Your task to perform on an android device: choose inbox layout in the gmail app Image 0: 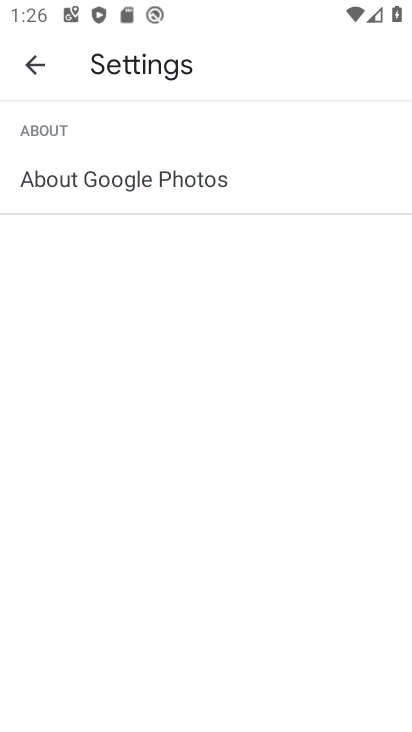
Step 0: press home button
Your task to perform on an android device: choose inbox layout in the gmail app Image 1: 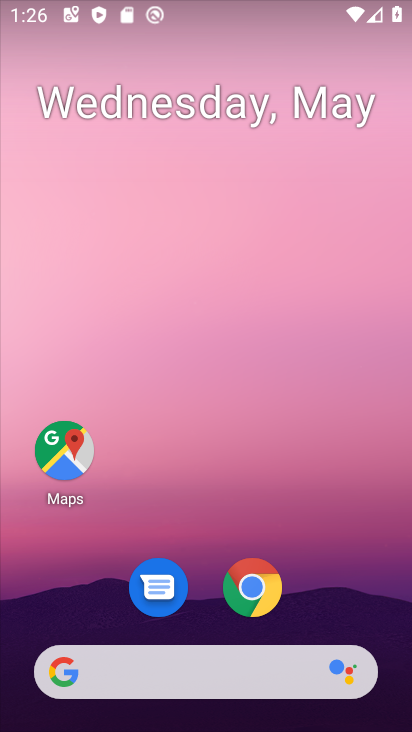
Step 1: drag from (325, 620) to (288, 3)
Your task to perform on an android device: choose inbox layout in the gmail app Image 2: 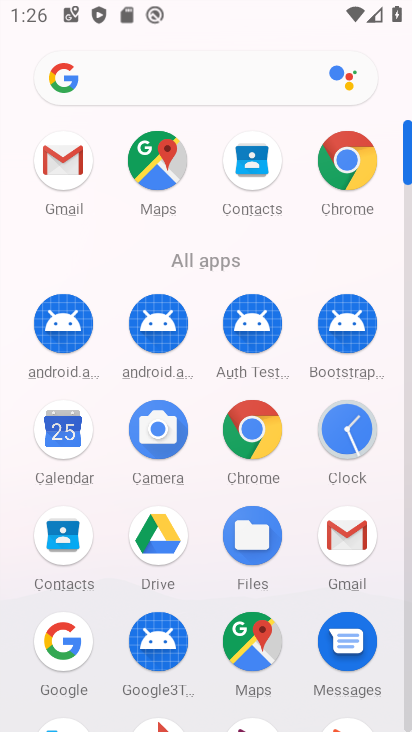
Step 2: click (345, 546)
Your task to perform on an android device: choose inbox layout in the gmail app Image 3: 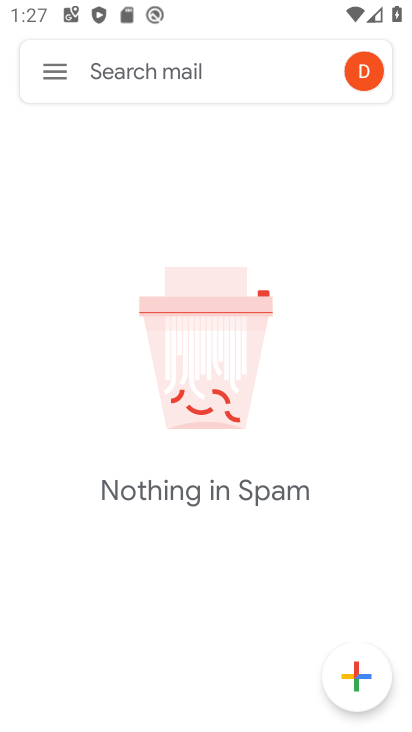
Step 3: click (60, 68)
Your task to perform on an android device: choose inbox layout in the gmail app Image 4: 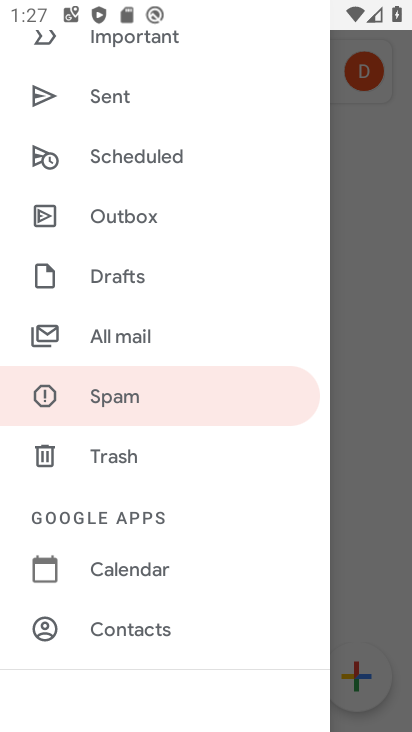
Step 4: drag from (156, 595) to (154, 108)
Your task to perform on an android device: choose inbox layout in the gmail app Image 5: 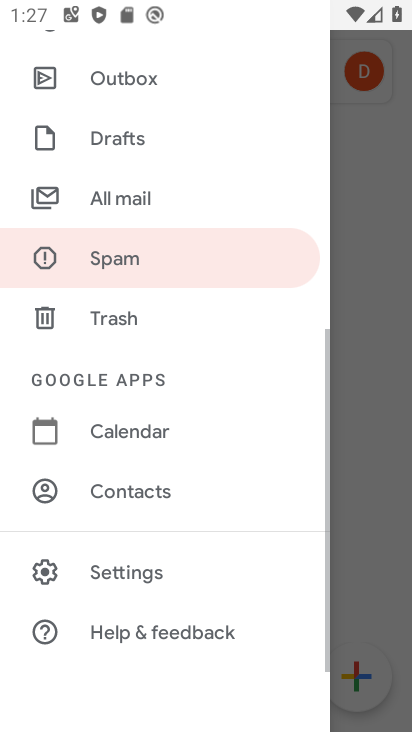
Step 5: click (159, 569)
Your task to perform on an android device: choose inbox layout in the gmail app Image 6: 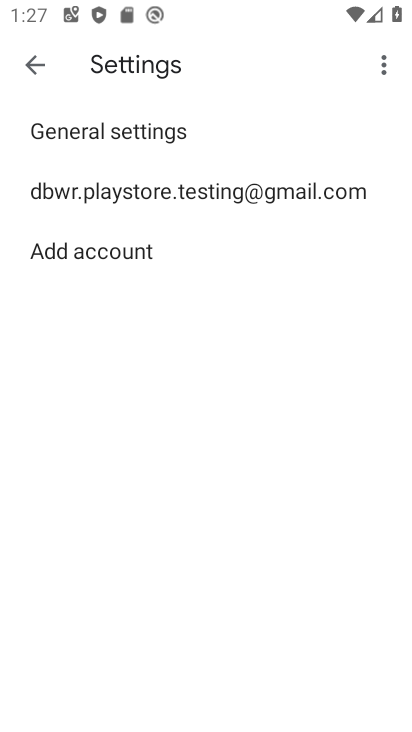
Step 6: click (99, 202)
Your task to perform on an android device: choose inbox layout in the gmail app Image 7: 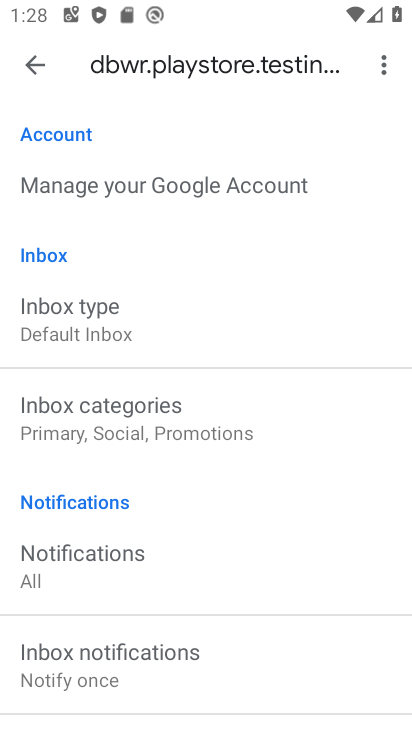
Step 7: drag from (146, 517) to (115, 721)
Your task to perform on an android device: choose inbox layout in the gmail app Image 8: 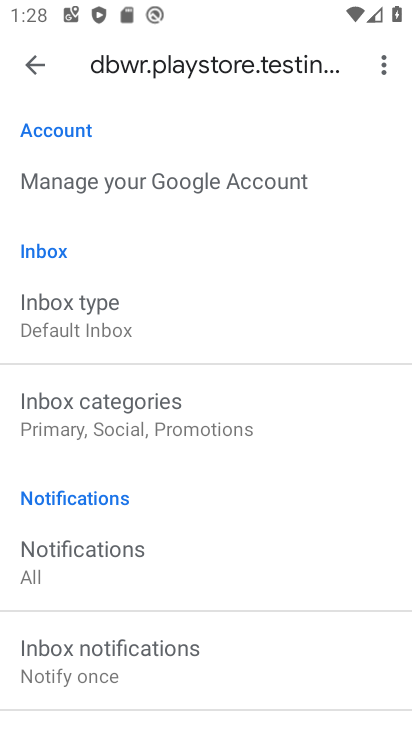
Step 8: click (87, 315)
Your task to perform on an android device: choose inbox layout in the gmail app Image 9: 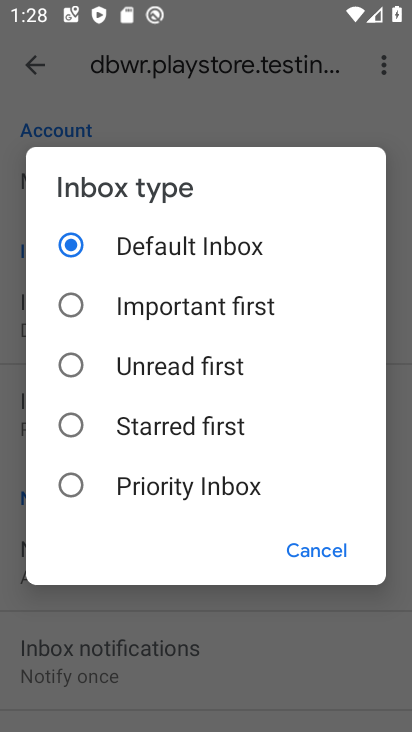
Step 9: click (125, 374)
Your task to perform on an android device: choose inbox layout in the gmail app Image 10: 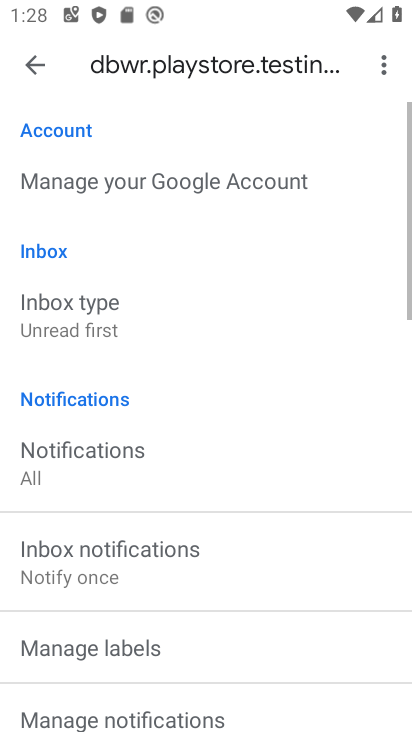
Step 10: task complete